Your task to perform on an android device: all mails in gmail Image 0: 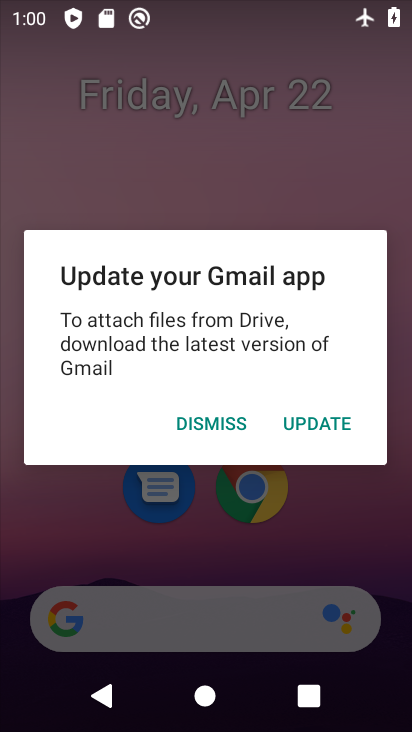
Step 0: press home button
Your task to perform on an android device: all mails in gmail Image 1: 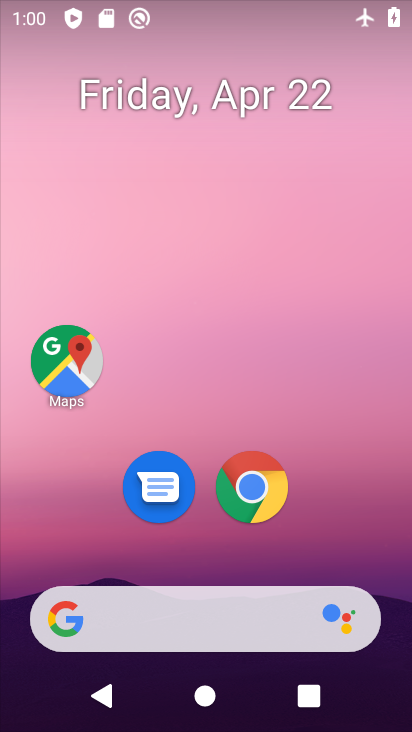
Step 1: drag from (185, 445) to (164, 34)
Your task to perform on an android device: all mails in gmail Image 2: 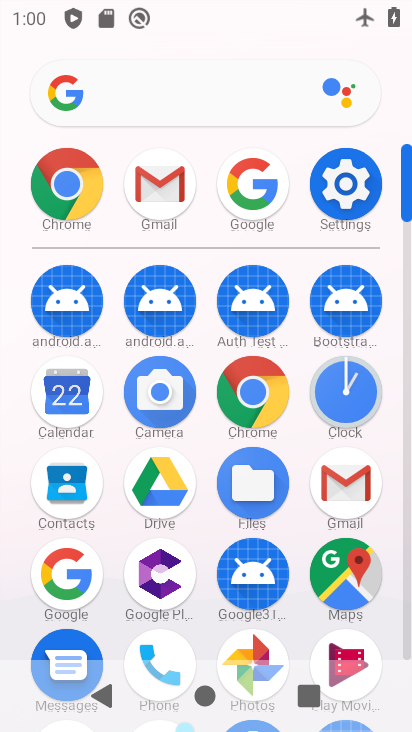
Step 2: click (162, 170)
Your task to perform on an android device: all mails in gmail Image 3: 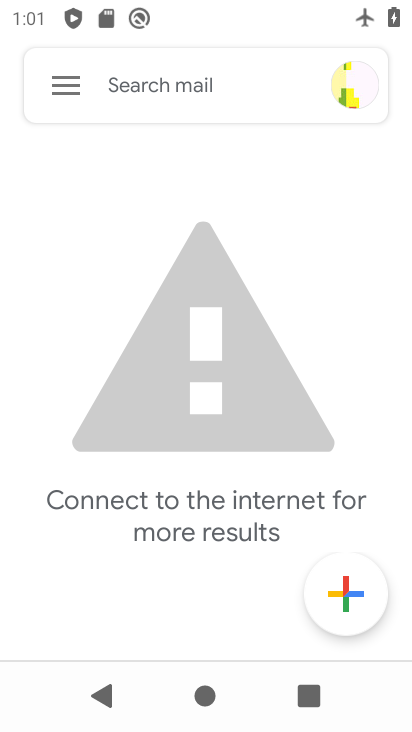
Step 3: click (49, 85)
Your task to perform on an android device: all mails in gmail Image 4: 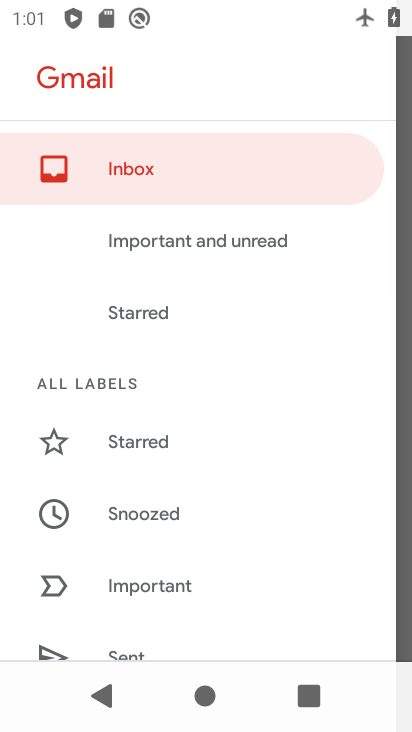
Step 4: drag from (216, 519) to (240, 257)
Your task to perform on an android device: all mails in gmail Image 5: 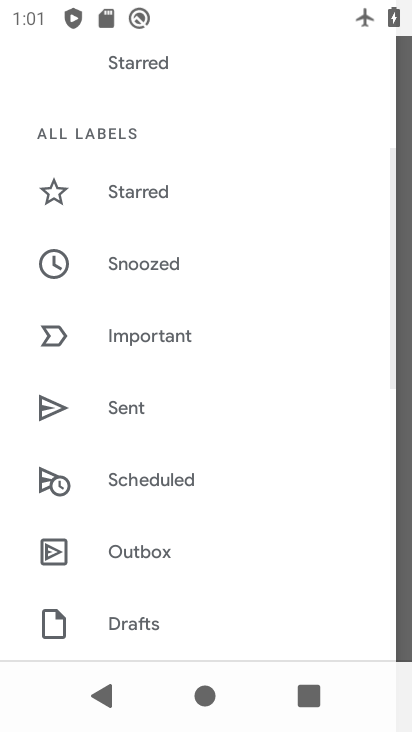
Step 5: drag from (231, 467) to (243, 282)
Your task to perform on an android device: all mails in gmail Image 6: 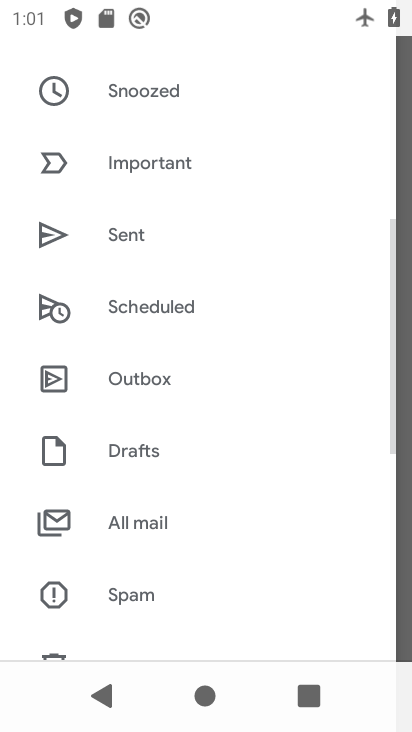
Step 6: drag from (203, 529) to (221, 406)
Your task to perform on an android device: all mails in gmail Image 7: 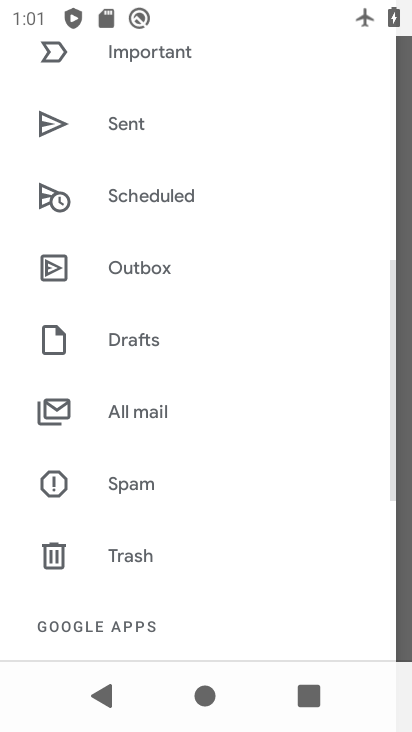
Step 7: click (162, 411)
Your task to perform on an android device: all mails in gmail Image 8: 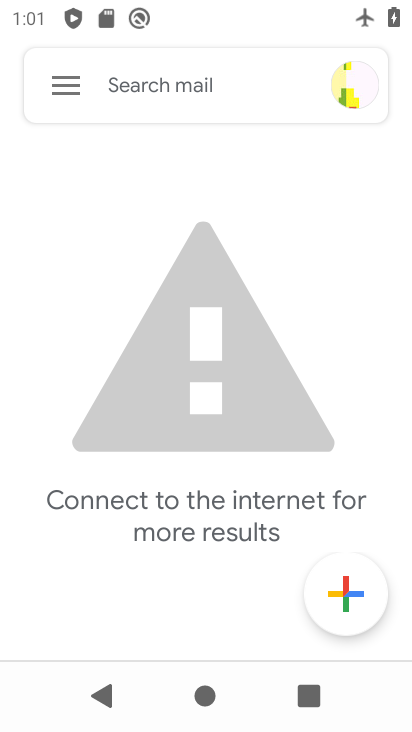
Step 8: task complete